Your task to perform on an android device: Go to accessibility settings Image 0: 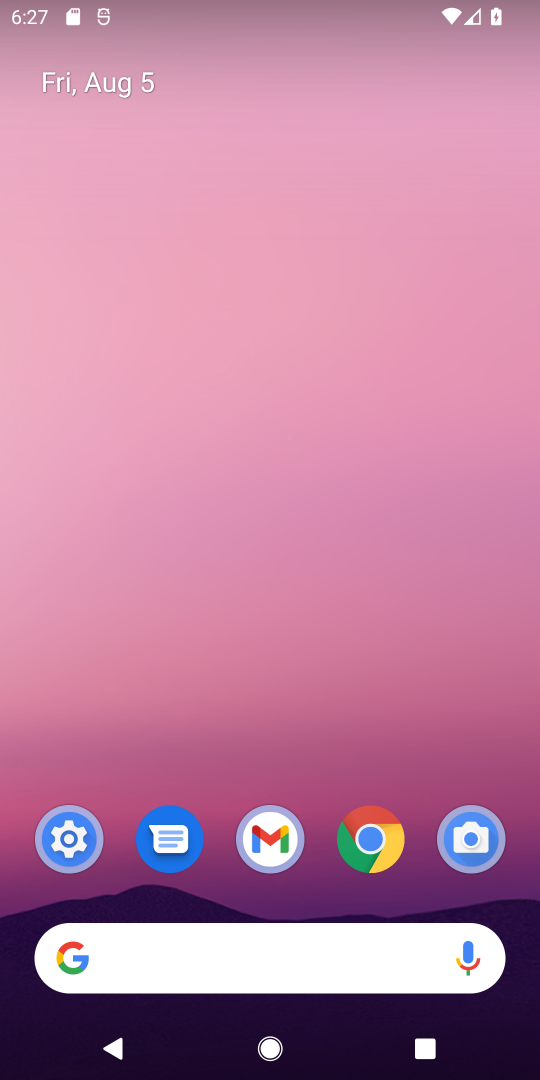
Step 0: click (64, 846)
Your task to perform on an android device: Go to accessibility settings Image 1: 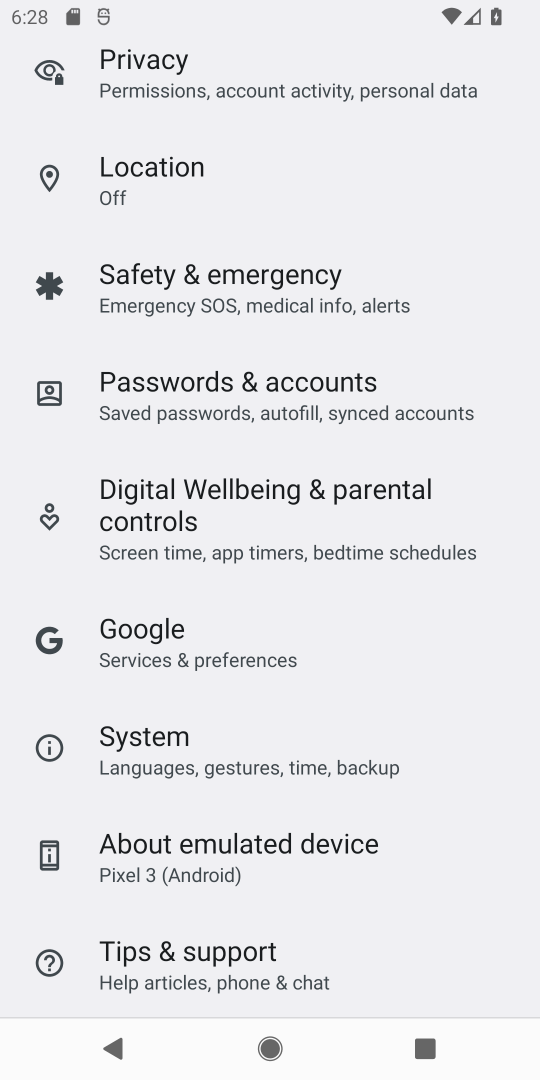
Step 1: drag from (277, 794) to (281, 298)
Your task to perform on an android device: Go to accessibility settings Image 2: 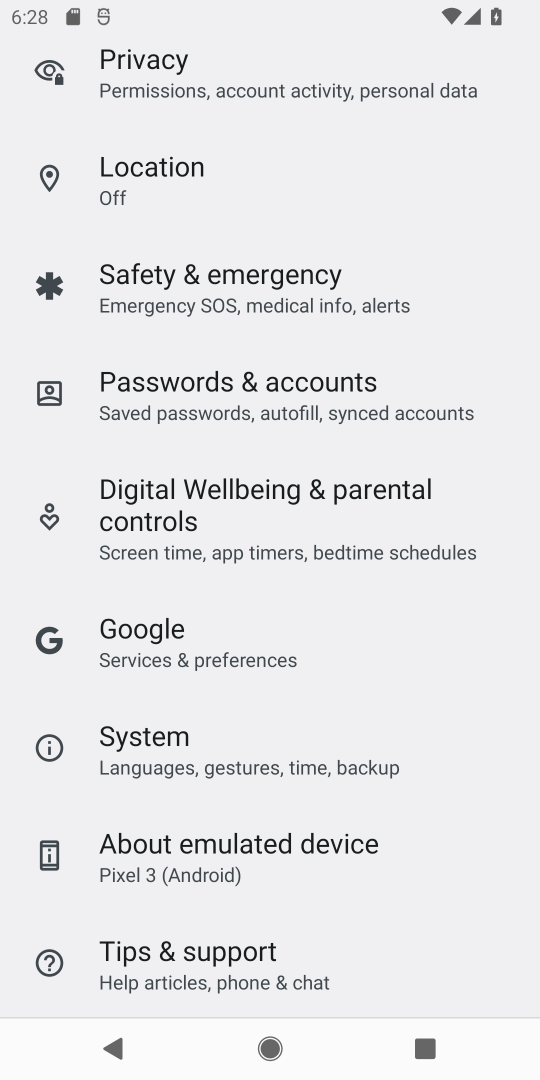
Step 2: drag from (272, 820) to (277, 258)
Your task to perform on an android device: Go to accessibility settings Image 3: 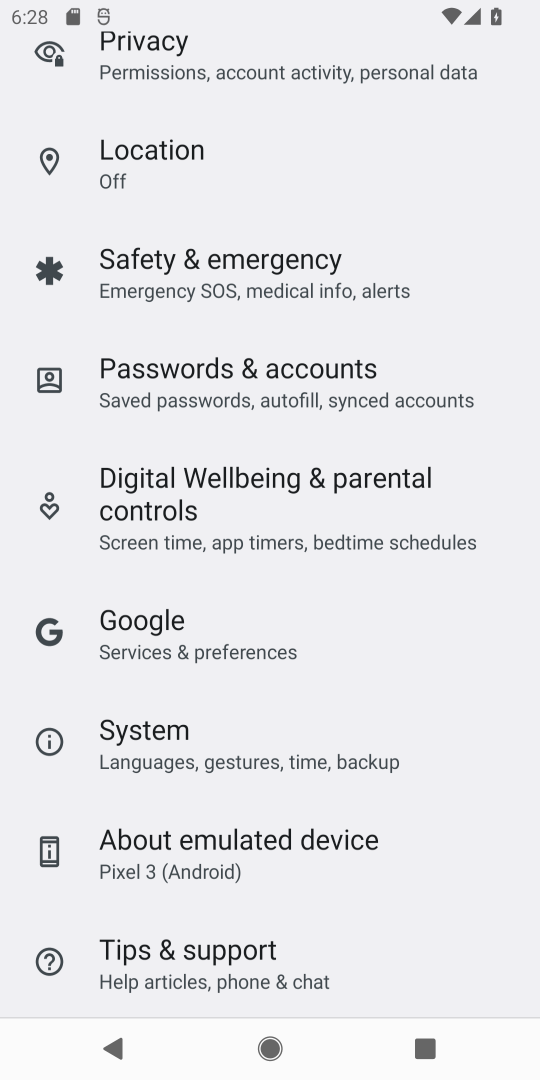
Step 3: drag from (277, 388) to (292, 816)
Your task to perform on an android device: Go to accessibility settings Image 4: 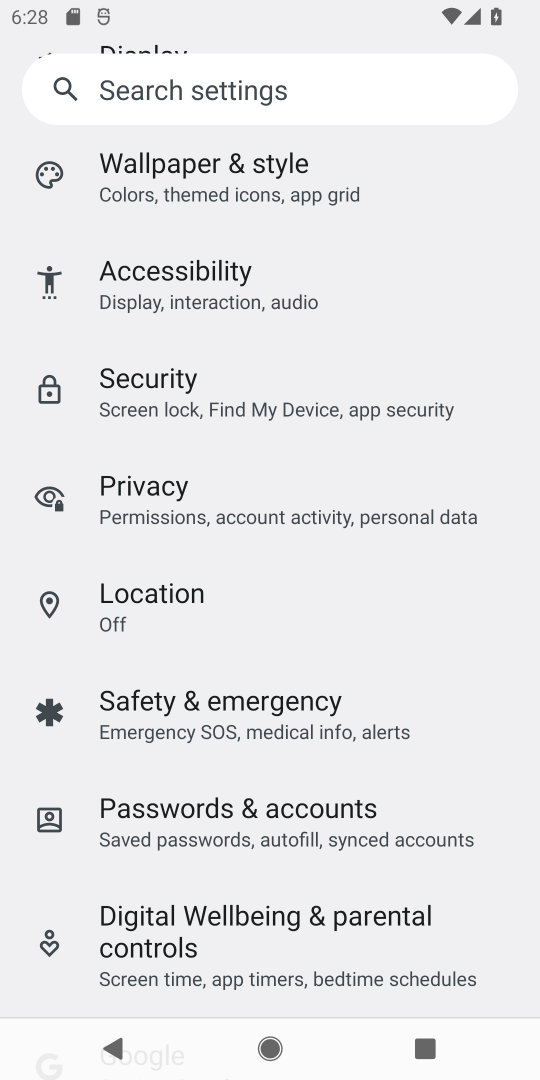
Step 4: click (217, 291)
Your task to perform on an android device: Go to accessibility settings Image 5: 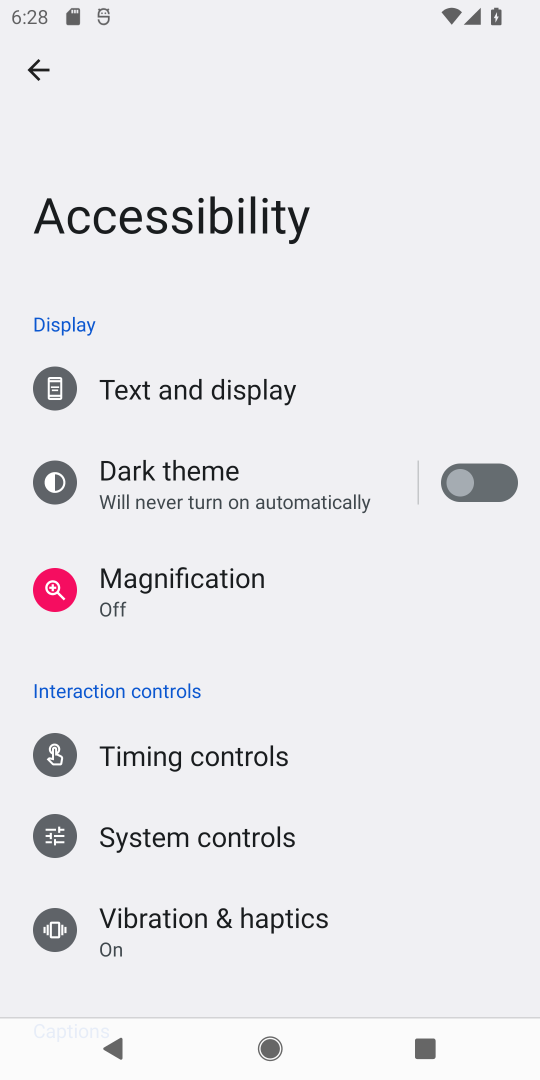
Step 5: task complete